Your task to perform on an android device: turn off javascript in the chrome app Image 0: 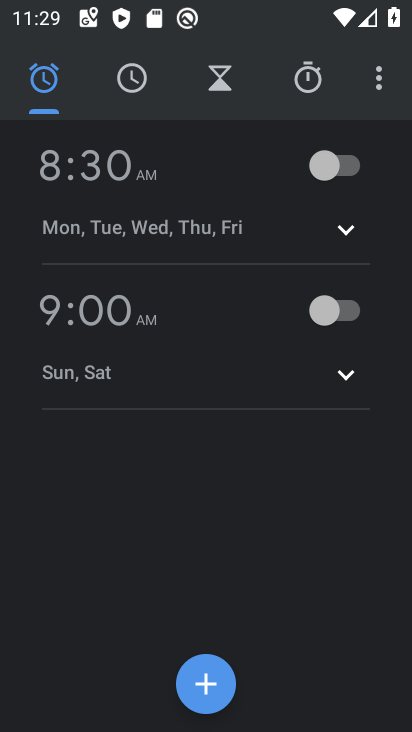
Step 0: press home button
Your task to perform on an android device: turn off javascript in the chrome app Image 1: 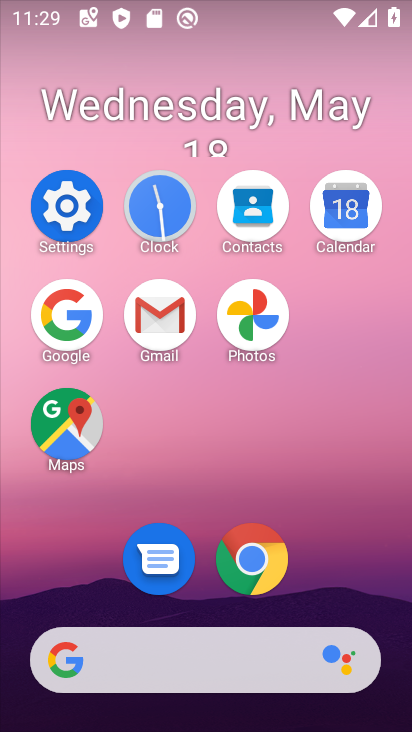
Step 1: click (255, 553)
Your task to perform on an android device: turn off javascript in the chrome app Image 2: 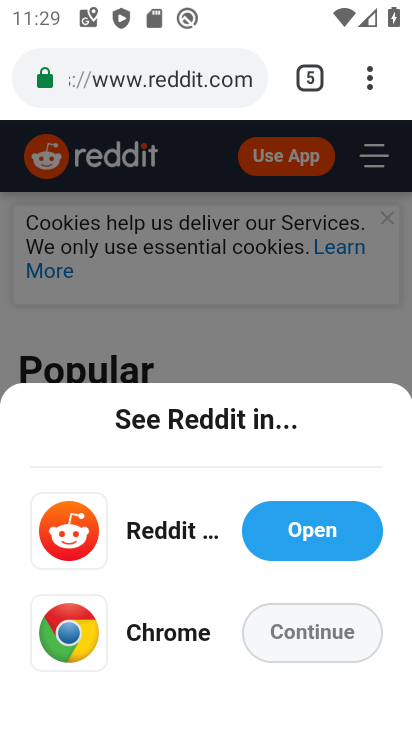
Step 2: click (381, 93)
Your task to perform on an android device: turn off javascript in the chrome app Image 3: 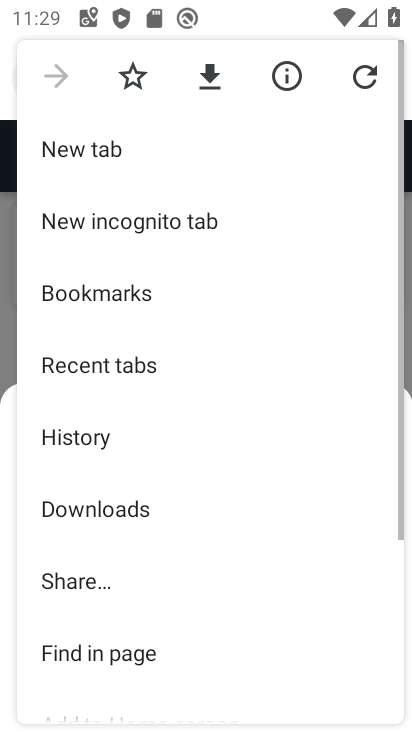
Step 3: drag from (261, 458) to (298, 162)
Your task to perform on an android device: turn off javascript in the chrome app Image 4: 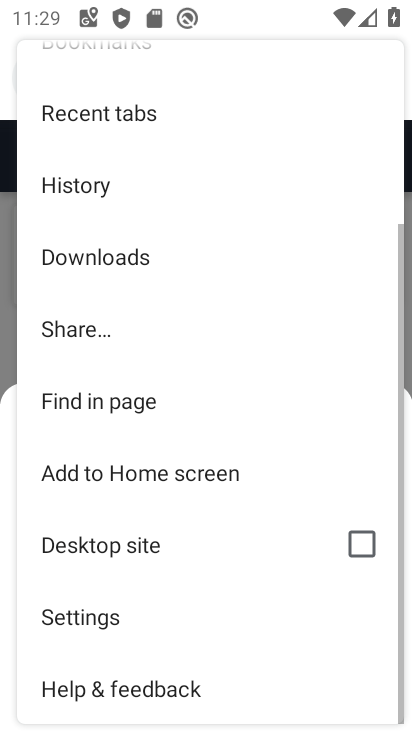
Step 4: click (157, 628)
Your task to perform on an android device: turn off javascript in the chrome app Image 5: 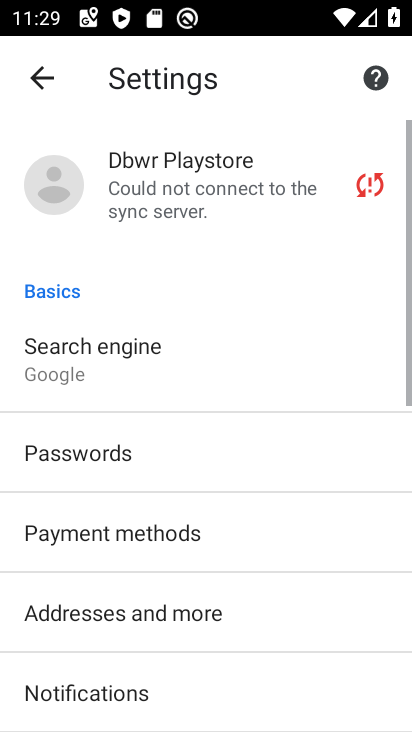
Step 5: drag from (157, 627) to (214, 180)
Your task to perform on an android device: turn off javascript in the chrome app Image 6: 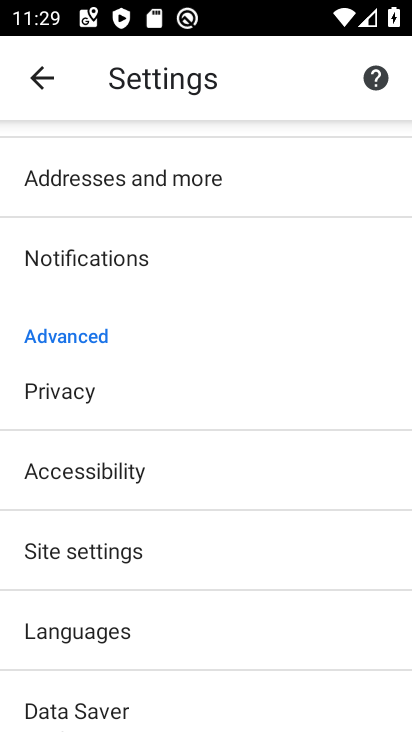
Step 6: click (146, 563)
Your task to perform on an android device: turn off javascript in the chrome app Image 7: 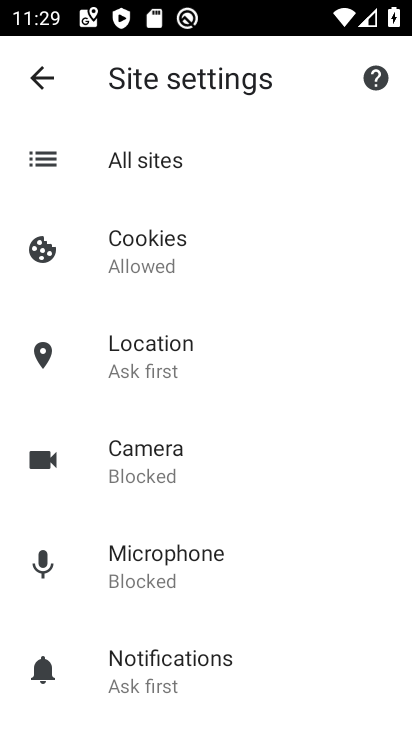
Step 7: drag from (229, 604) to (270, 277)
Your task to perform on an android device: turn off javascript in the chrome app Image 8: 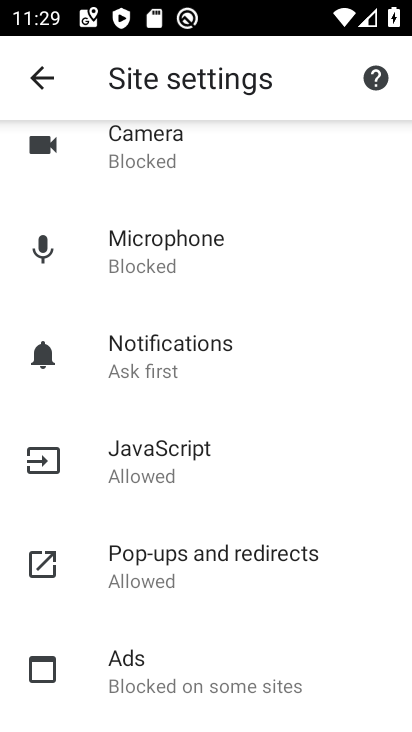
Step 8: click (245, 444)
Your task to perform on an android device: turn off javascript in the chrome app Image 9: 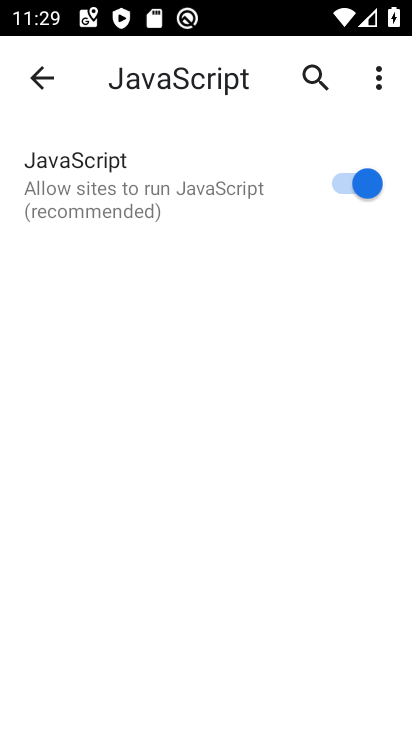
Step 9: click (362, 196)
Your task to perform on an android device: turn off javascript in the chrome app Image 10: 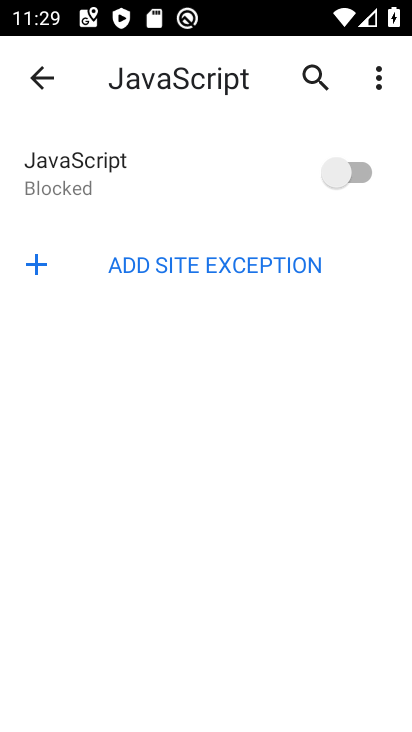
Step 10: task complete